Your task to perform on an android device: search for starred emails in the gmail app Image 0: 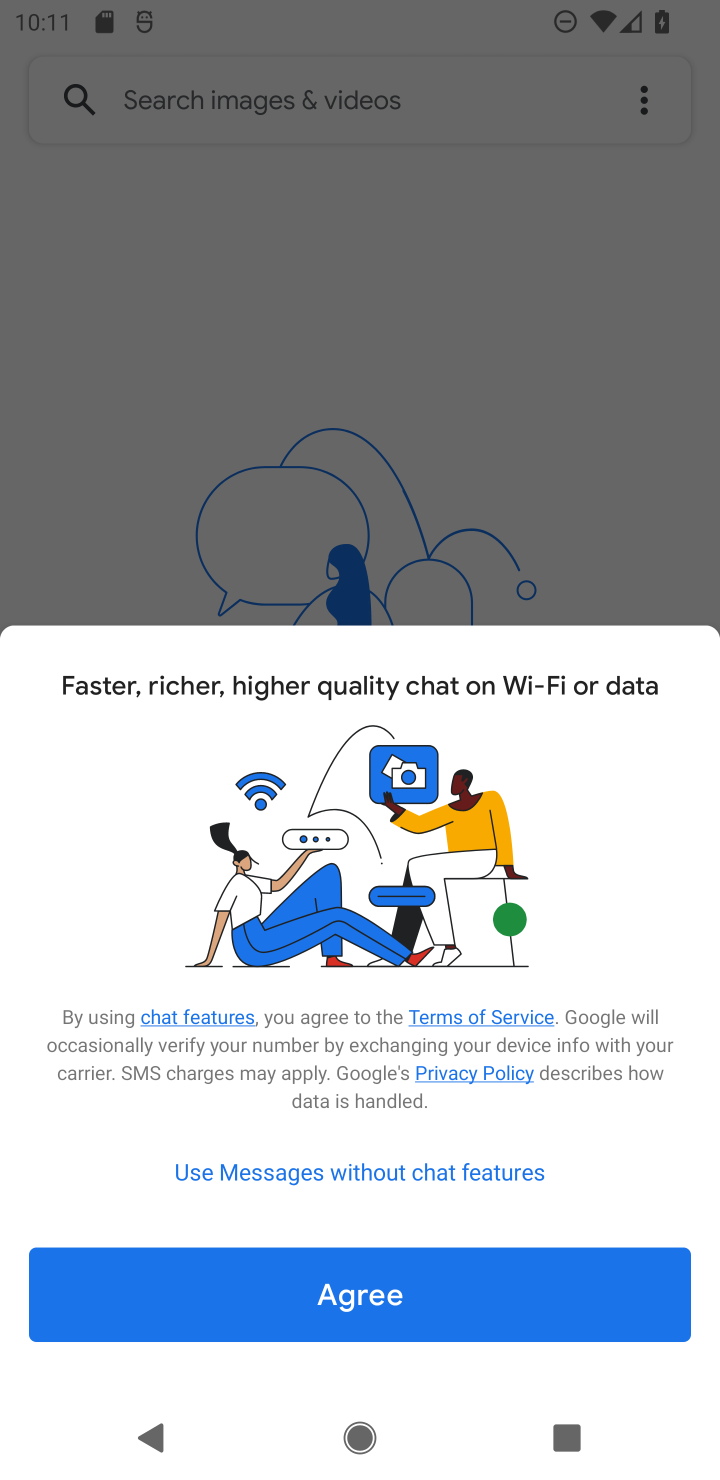
Step 0: press home button
Your task to perform on an android device: search for starred emails in the gmail app Image 1: 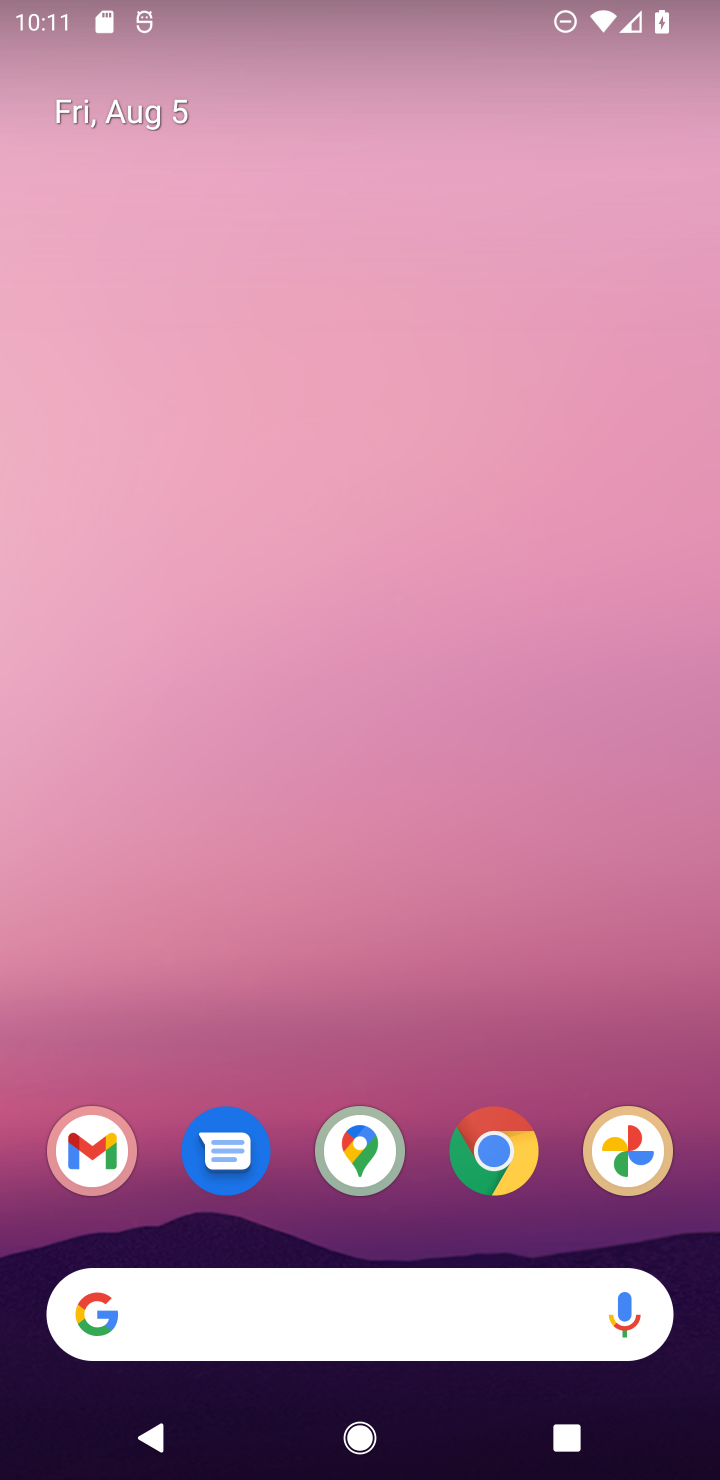
Step 1: click (113, 1179)
Your task to perform on an android device: search for starred emails in the gmail app Image 2: 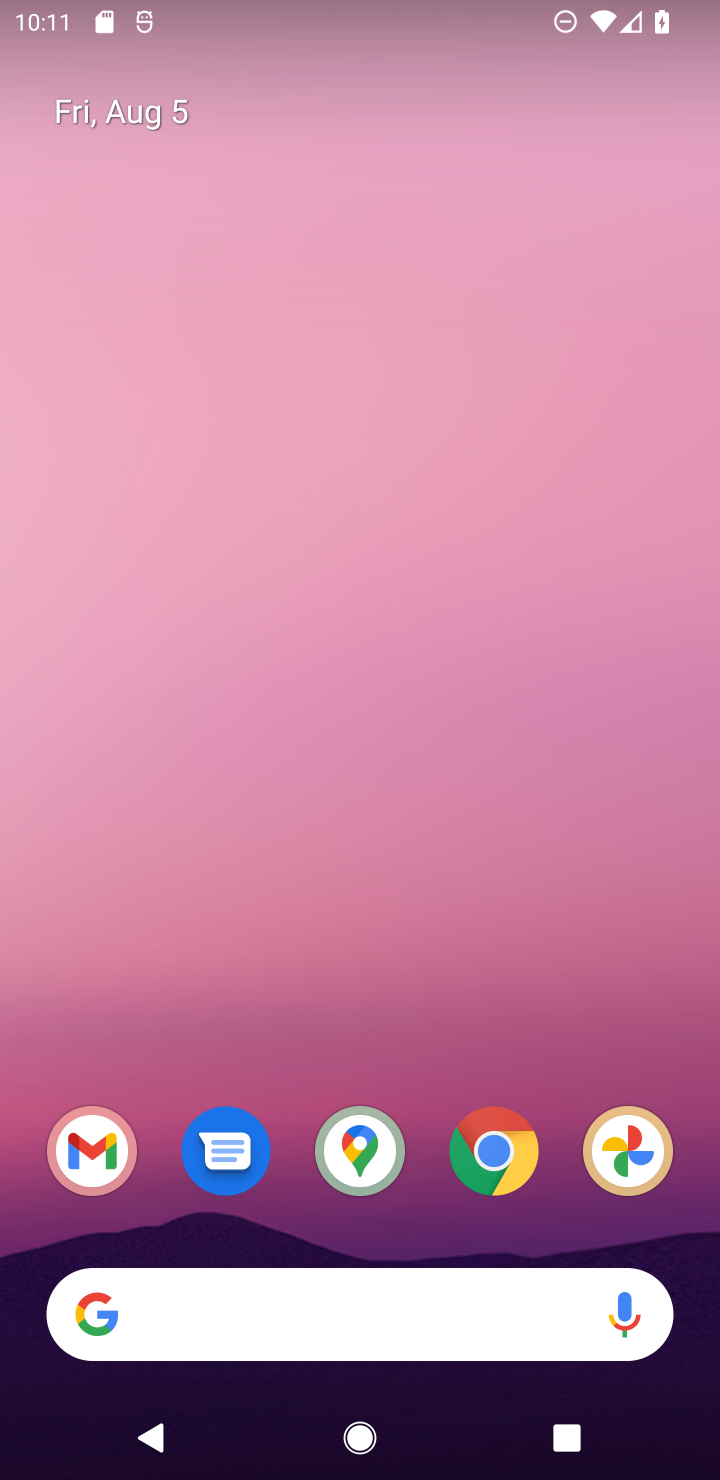
Step 2: click (113, 1179)
Your task to perform on an android device: search for starred emails in the gmail app Image 3: 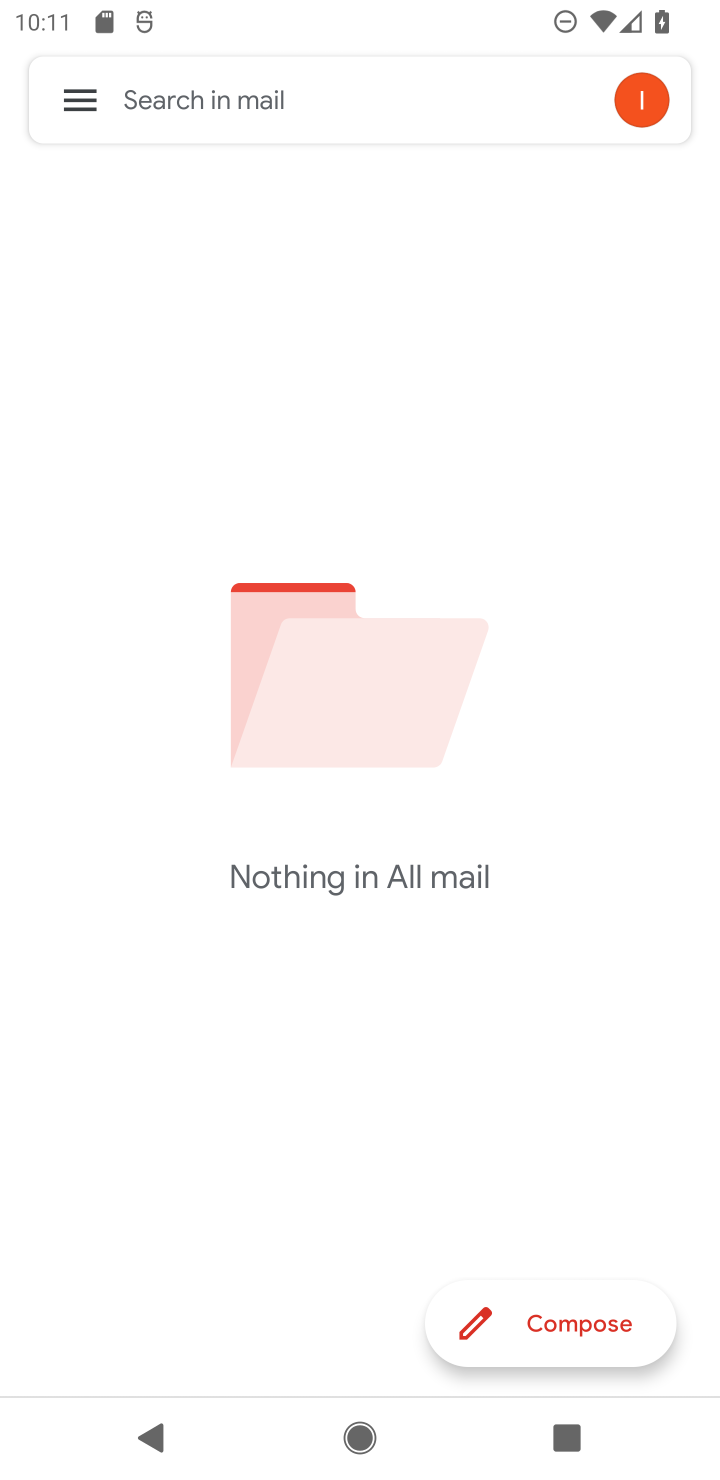
Step 3: click (74, 103)
Your task to perform on an android device: search for starred emails in the gmail app Image 4: 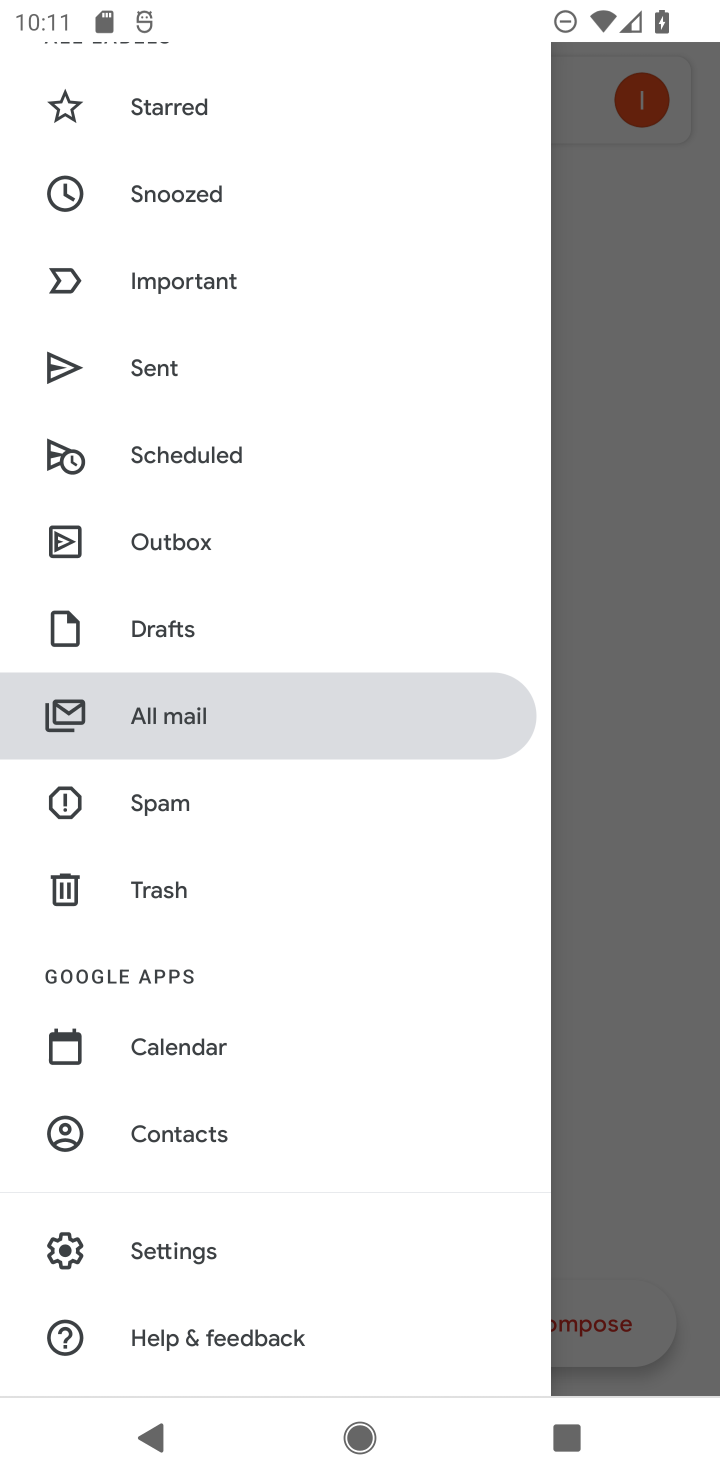
Step 4: click (187, 94)
Your task to perform on an android device: search for starred emails in the gmail app Image 5: 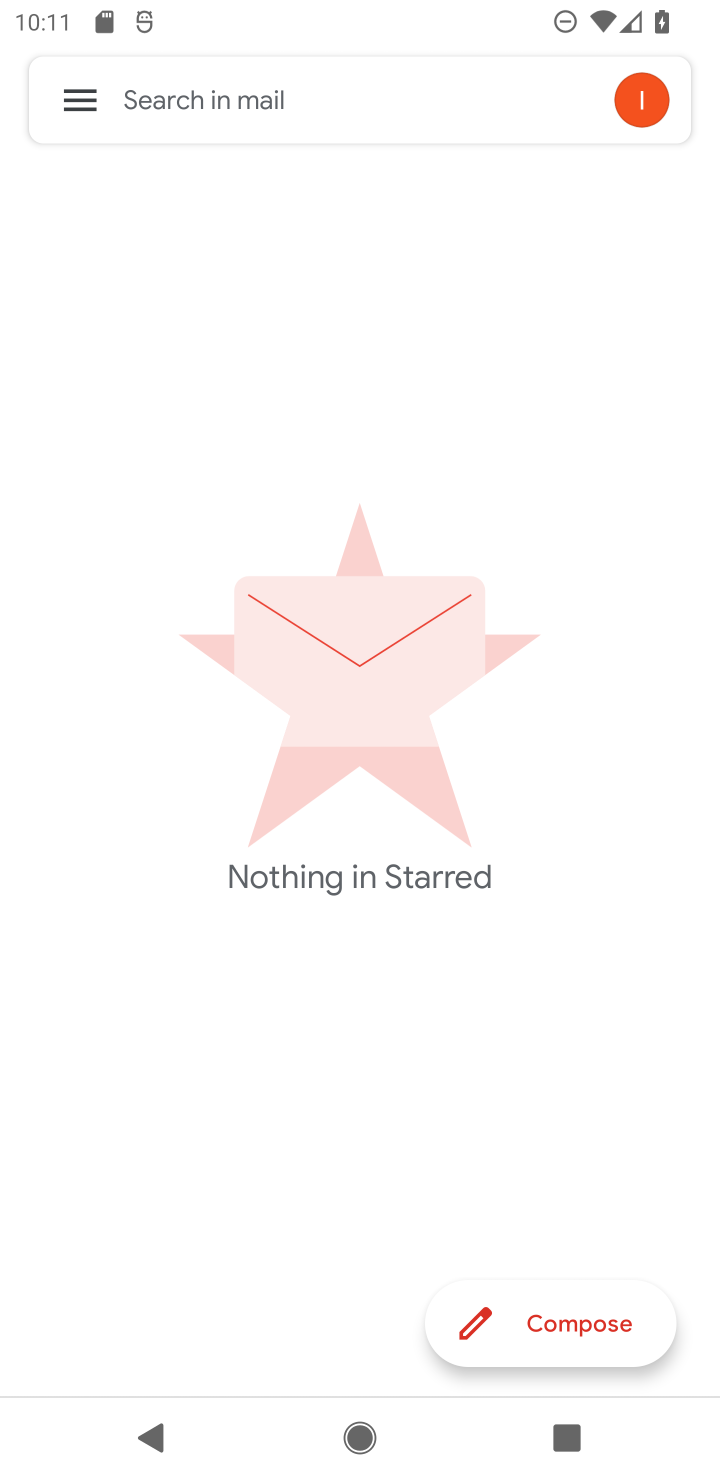
Step 5: task complete